Your task to perform on an android device: Open calendar and show me the first week of next month Image 0: 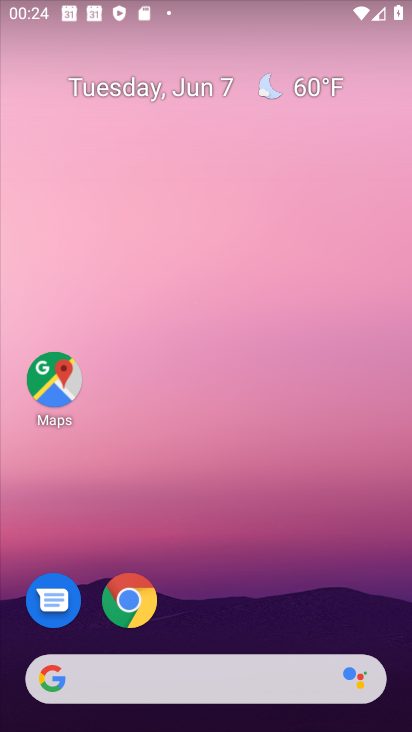
Step 0: drag from (215, 727) to (214, 176)
Your task to perform on an android device: Open calendar and show me the first week of next month Image 1: 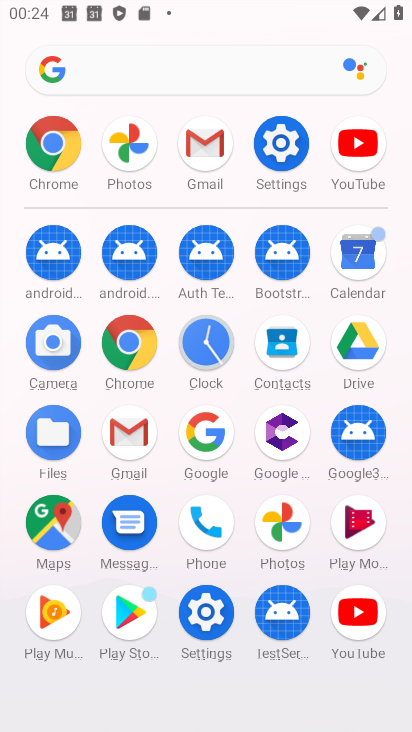
Step 1: click (353, 262)
Your task to perform on an android device: Open calendar and show me the first week of next month Image 2: 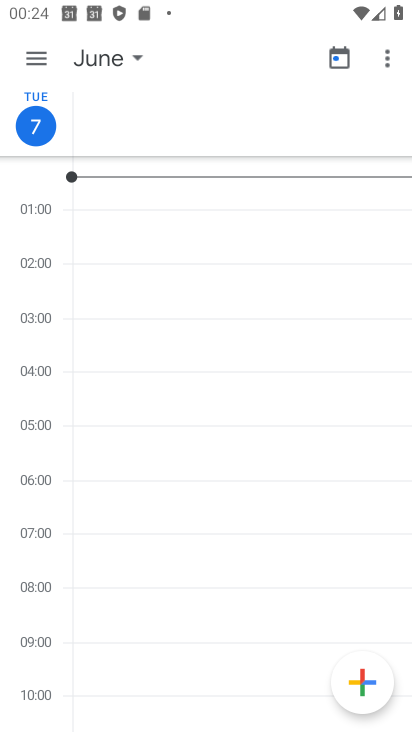
Step 2: click (120, 53)
Your task to perform on an android device: Open calendar and show me the first week of next month Image 3: 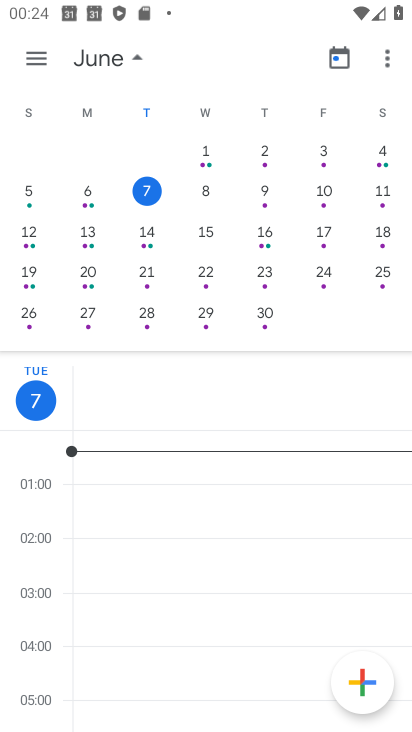
Step 3: drag from (344, 219) to (15, 223)
Your task to perform on an android device: Open calendar and show me the first week of next month Image 4: 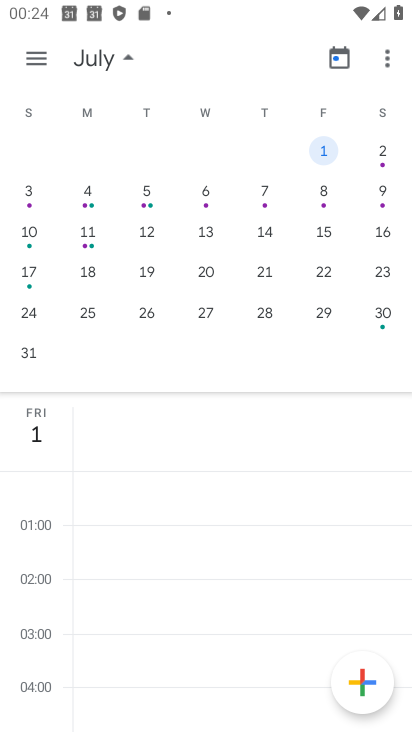
Step 4: click (90, 189)
Your task to perform on an android device: Open calendar and show me the first week of next month Image 5: 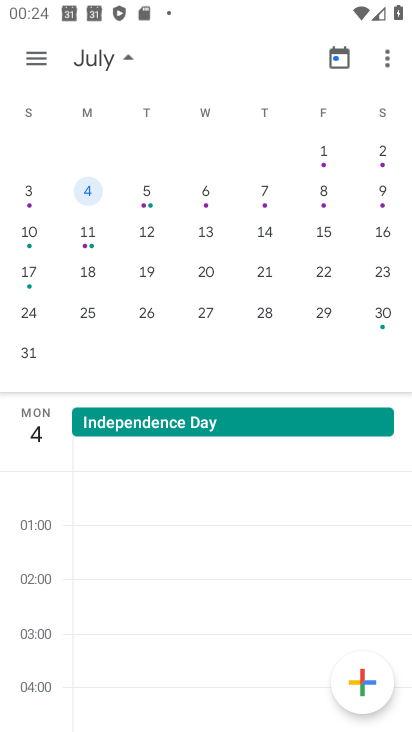
Step 5: click (38, 57)
Your task to perform on an android device: Open calendar and show me the first week of next month Image 6: 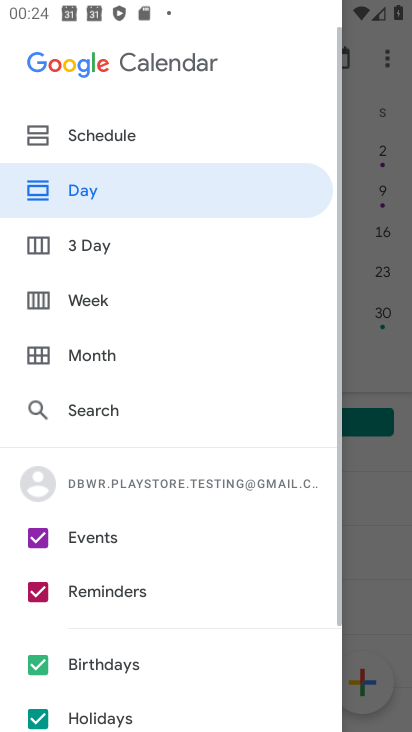
Step 6: click (94, 295)
Your task to perform on an android device: Open calendar and show me the first week of next month Image 7: 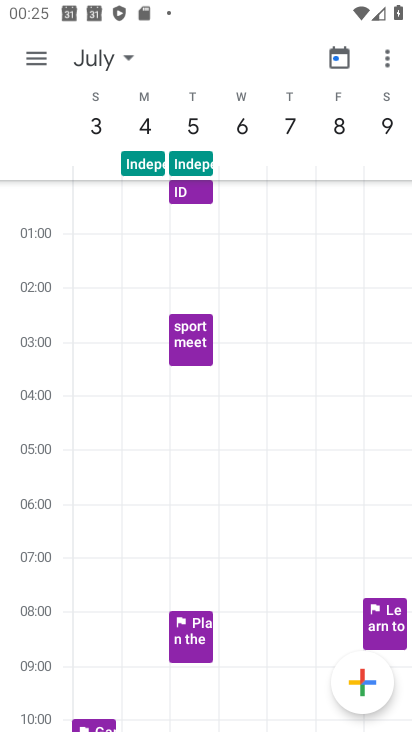
Step 7: task complete